Your task to perform on an android device: uninstall "Airtel Thanks" Image 0: 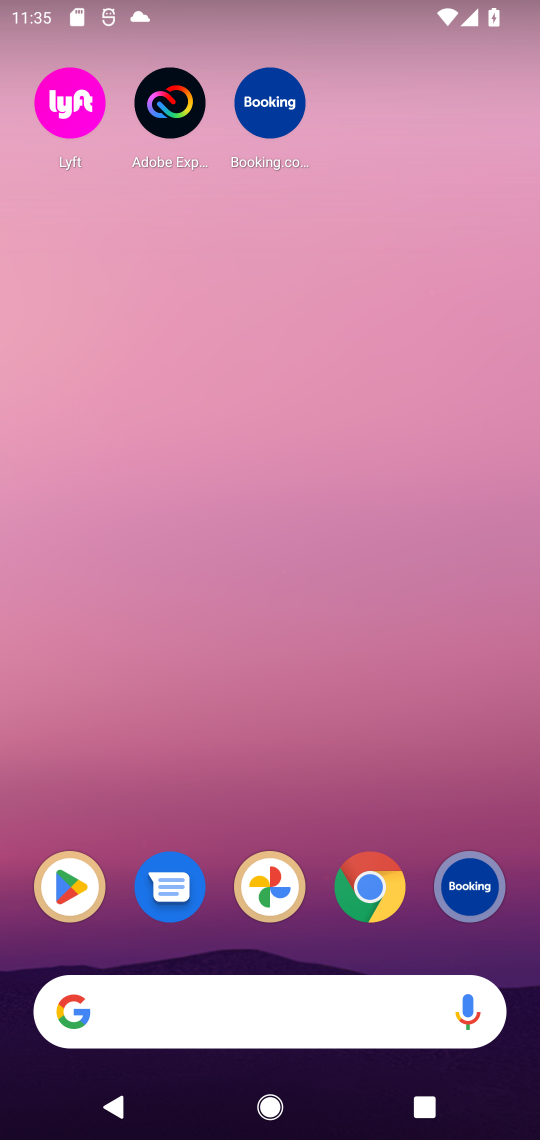
Step 0: drag from (295, 997) to (419, 192)
Your task to perform on an android device: uninstall "Airtel Thanks" Image 1: 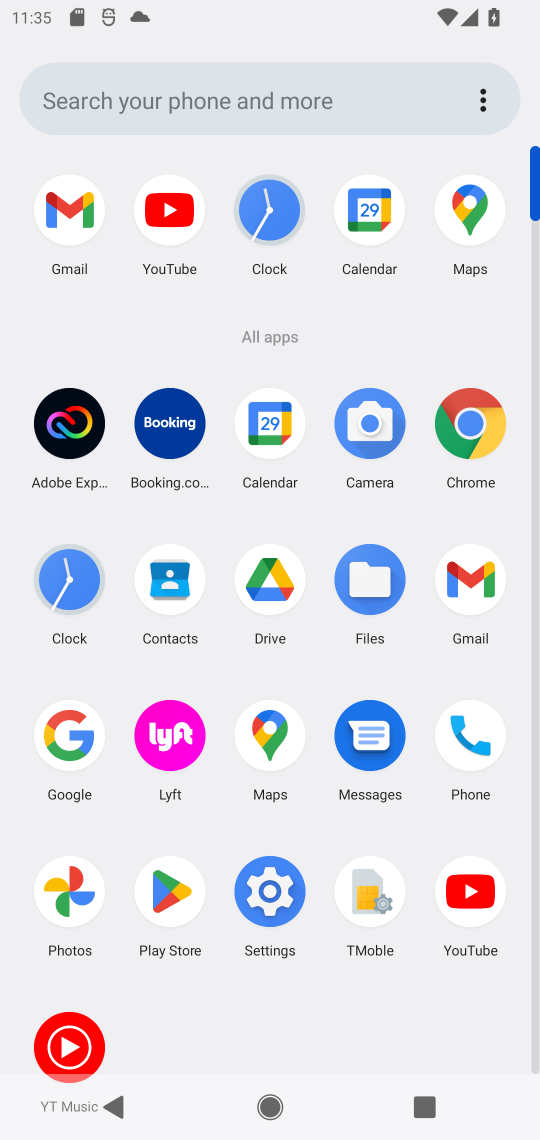
Step 1: drag from (250, 987) to (218, 510)
Your task to perform on an android device: uninstall "Airtel Thanks" Image 2: 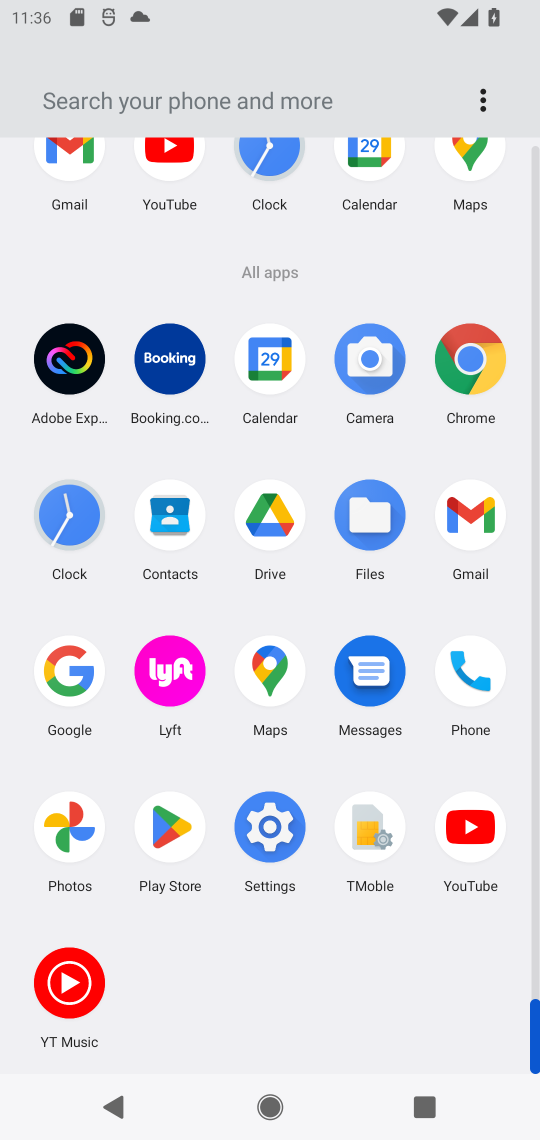
Step 2: click (169, 824)
Your task to perform on an android device: uninstall "Airtel Thanks" Image 3: 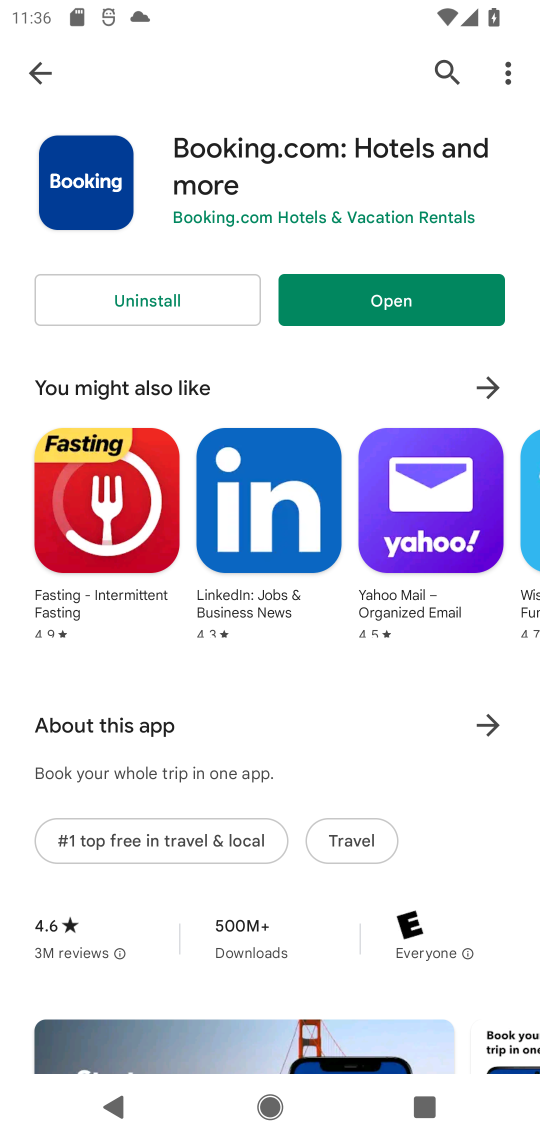
Step 3: click (448, 56)
Your task to perform on an android device: uninstall "Airtel Thanks" Image 4: 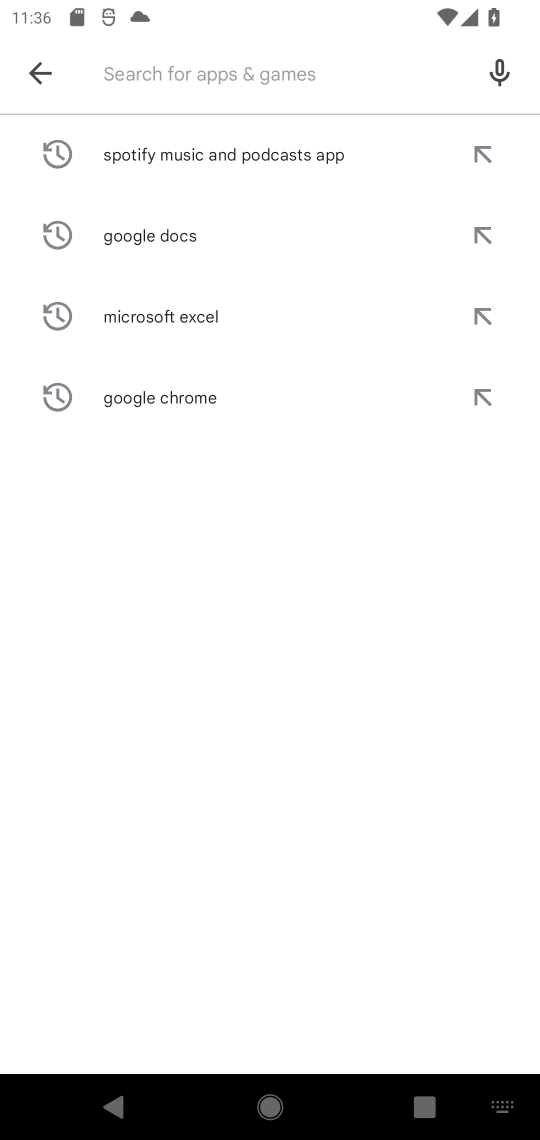
Step 4: type "Airtel Thanks"
Your task to perform on an android device: uninstall "Airtel Thanks" Image 5: 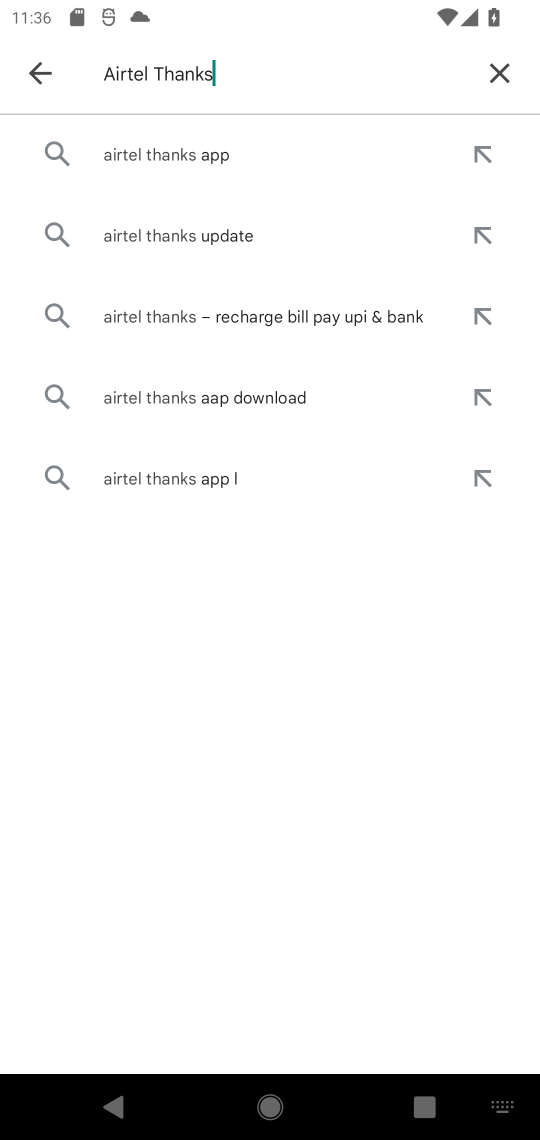
Step 5: click (191, 151)
Your task to perform on an android device: uninstall "Airtel Thanks" Image 6: 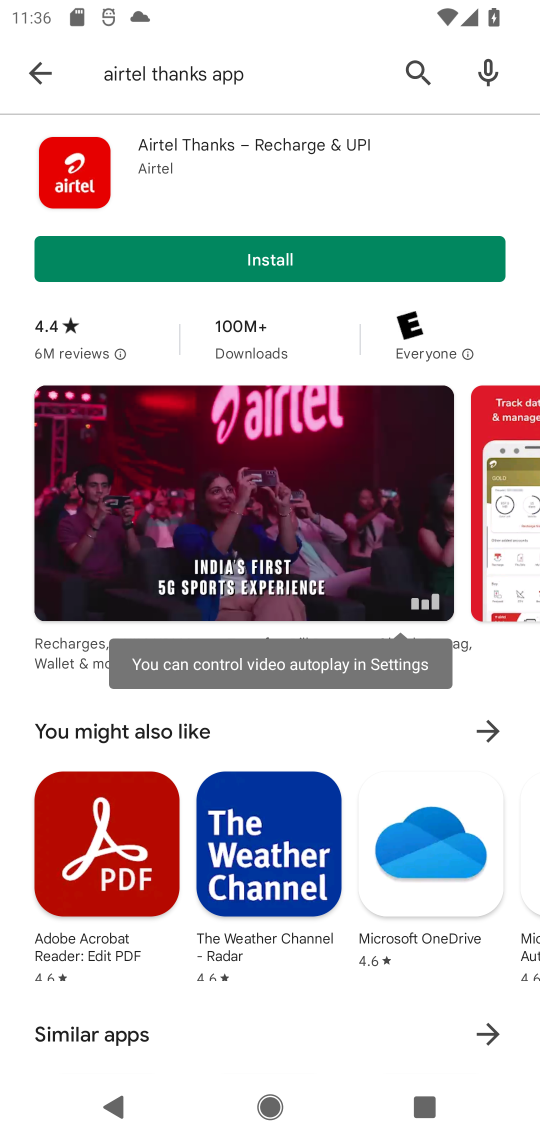
Step 6: task complete